Your task to perform on an android device: open a new tab in the chrome app Image 0: 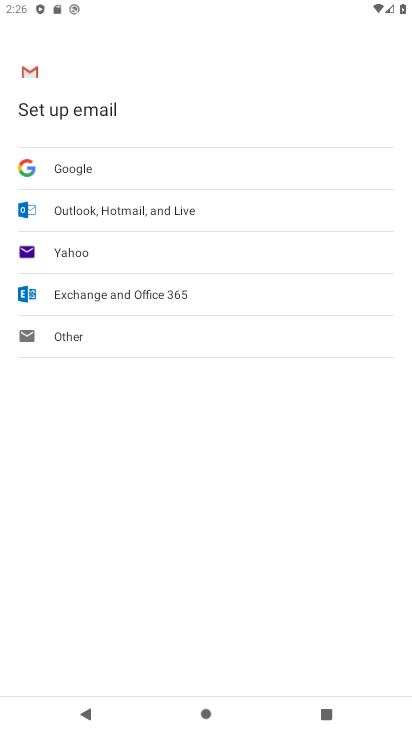
Step 0: press home button
Your task to perform on an android device: open a new tab in the chrome app Image 1: 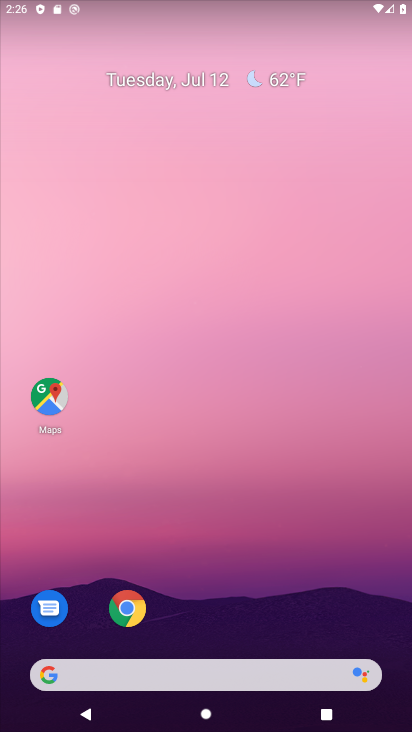
Step 1: click (126, 609)
Your task to perform on an android device: open a new tab in the chrome app Image 2: 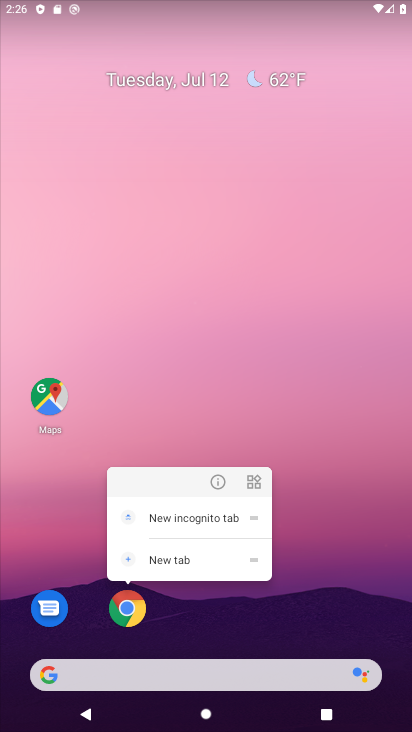
Step 2: click (133, 612)
Your task to perform on an android device: open a new tab in the chrome app Image 3: 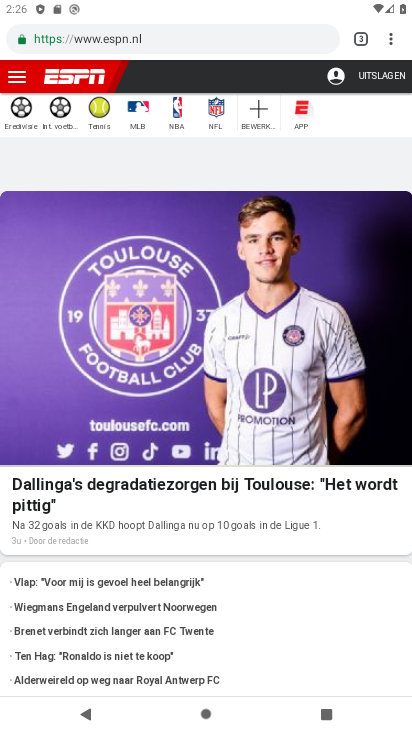
Step 3: task complete